Your task to perform on an android device: open chrome privacy settings Image 0: 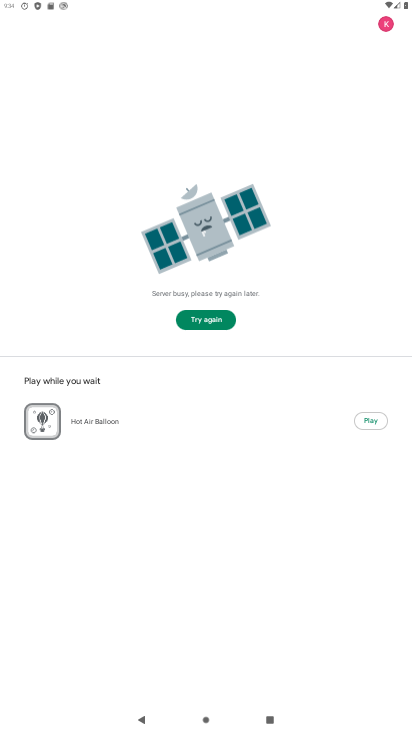
Step 0: press home button
Your task to perform on an android device: open chrome privacy settings Image 1: 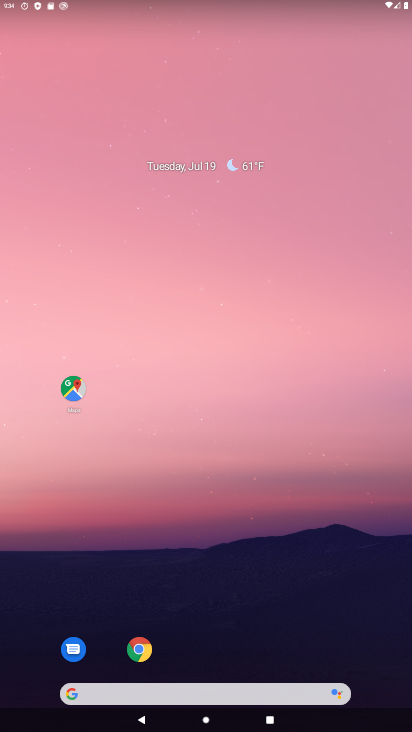
Step 1: click (141, 653)
Your task to perform on an android device: open chrome privacy settings Image 2: 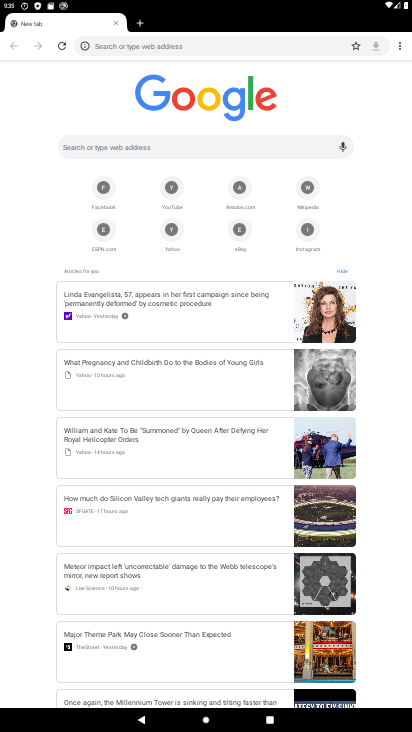
Step 2: click (401, 48)
Your task to perform on an android device: open chrome privacy settings Image 3: 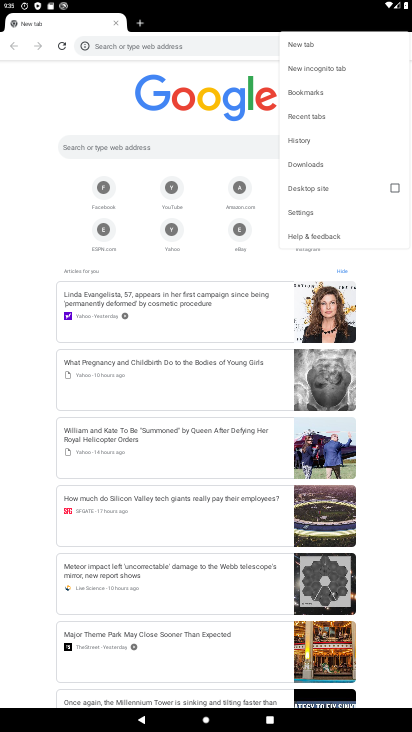
Step 3: click (313, 207)
Your task to perform on an android device: open chrome privacy settings Image 4: 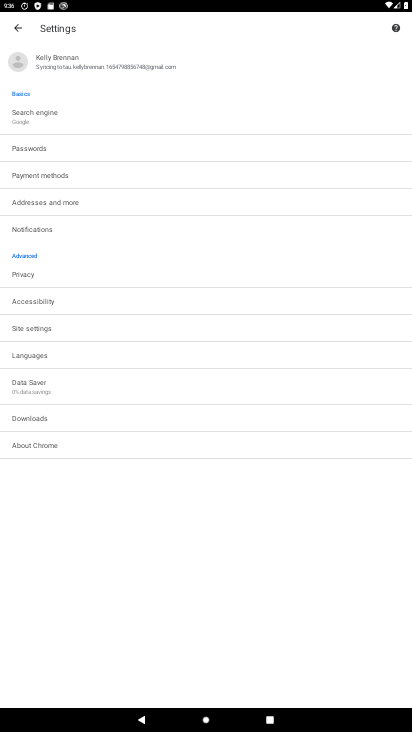
Step 4: click (40, 268)
Your task to perform on an android device: open chrome privacy settings Image 5: 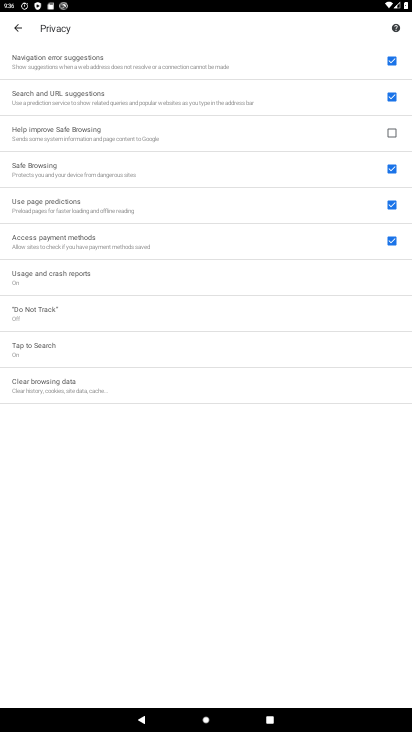
Step 5: task complete